Your task to perform on an android device: allow notifications from all sites in the chrome app Image 0: 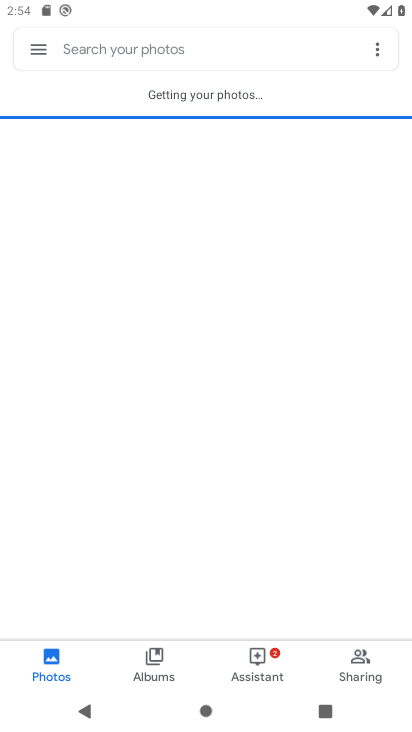
Step 0: press home button
Your task to perform on an android device: allow notifications from all sites in the chrome app Image 1: 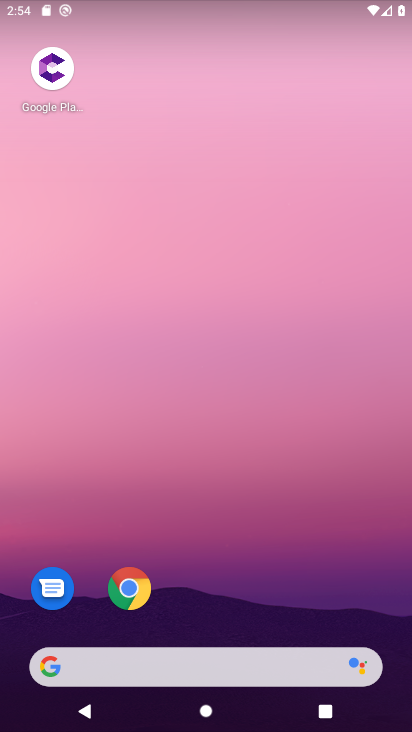
Step 1: drag from (210, 627) to (188, 194)
Your task to perform on an android device: allow notifications from all sites in the chrome app Image 2: 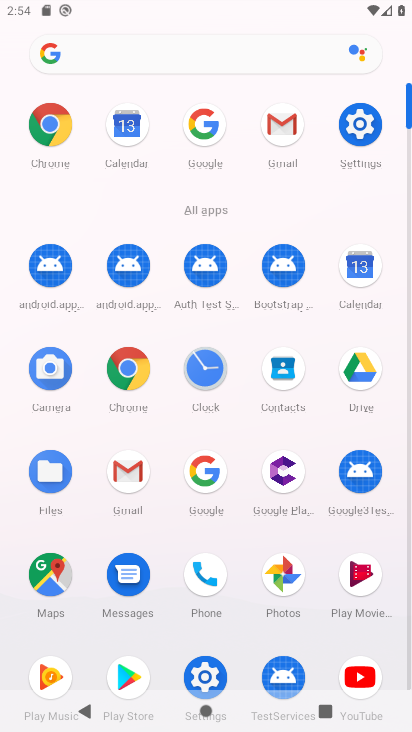
Step 2: click (52, 142)
Your task to perform on an android device: allow notifications from all sites in the chrome app Image 3: 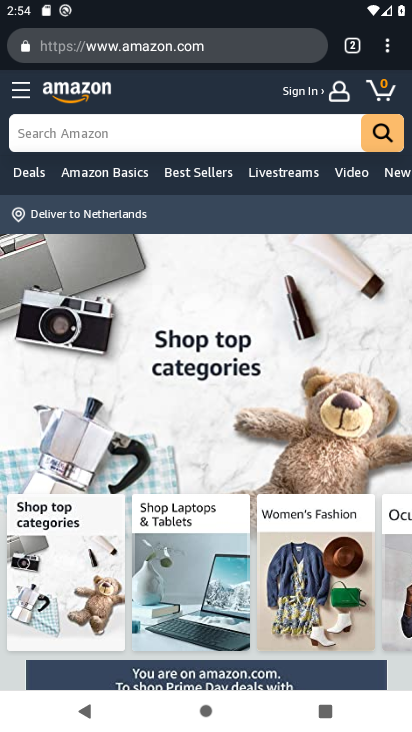
Step 3: drag from (383, 47) to (229, 552)
Your task to perform on an android device: allow notifications from all sites in the chrome app Image 4: 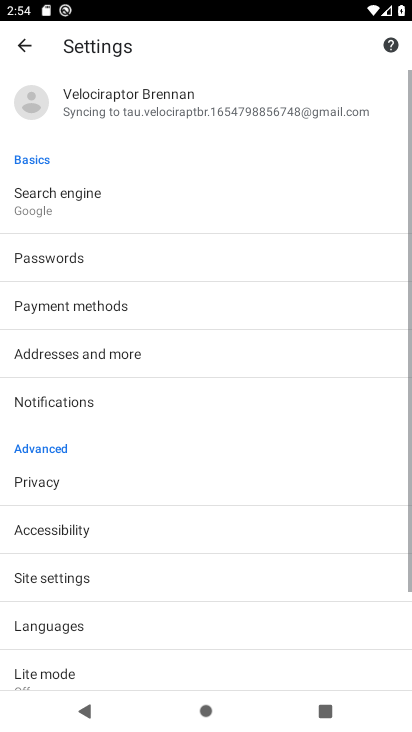
Step 4: click (62, 579)
Your task to perform on an android device: allow notifications from all sites in the chrome app Image 5: 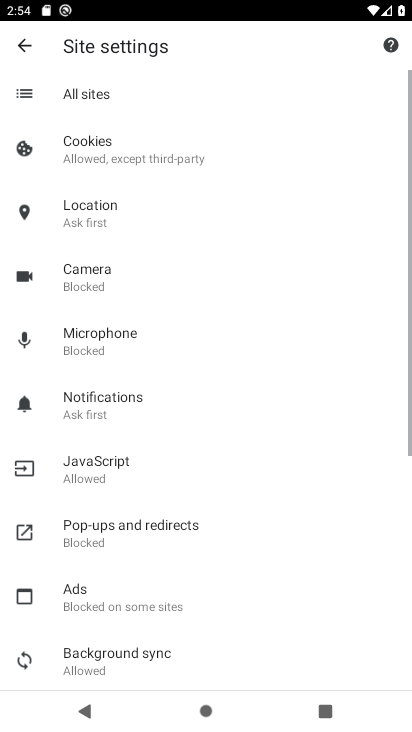
Step 5: click (95, 409)
Your task to perform on an android device: allow notifications from all sites in the chrome app Image 6: 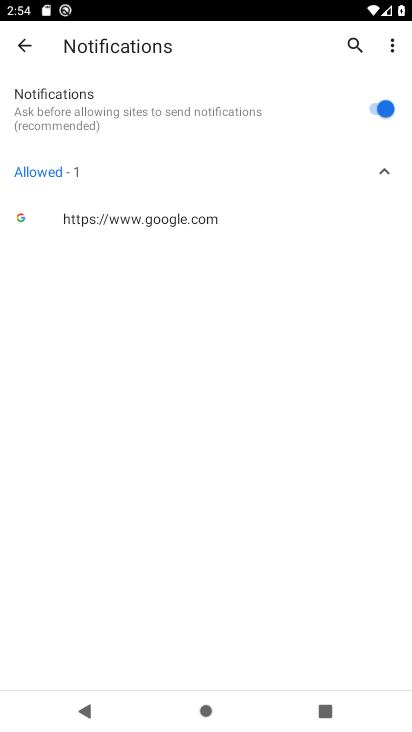
Step 6: task complete